Your task to perform on an android device: change notifications settings Image 0: 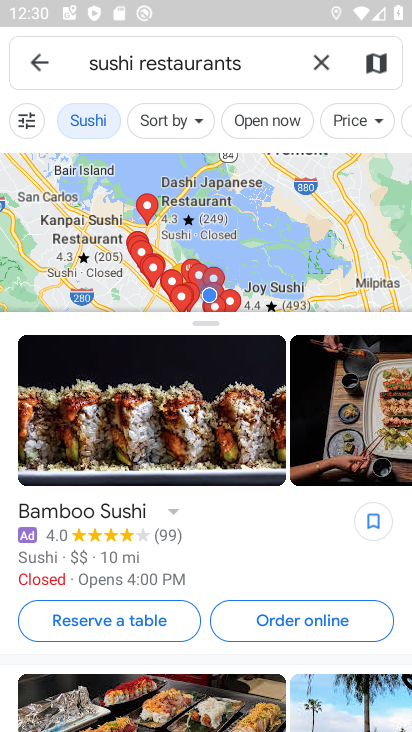
Step 0: press back button
Your task to perform on an android device: change notifications settings Image 1: 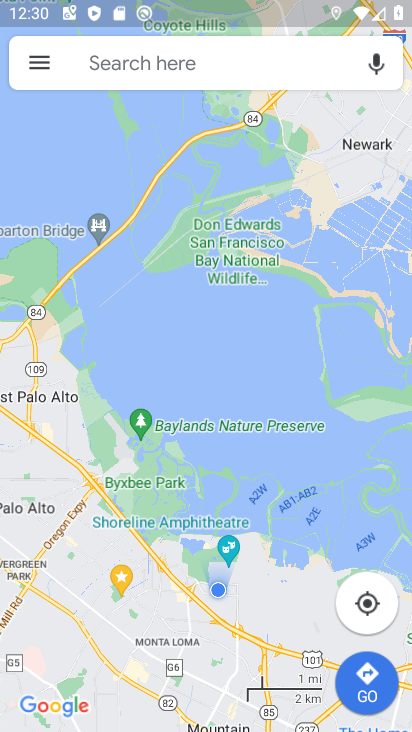
Step 1: press back button
Your task to perform on an android device: change notifications settings Image 2: 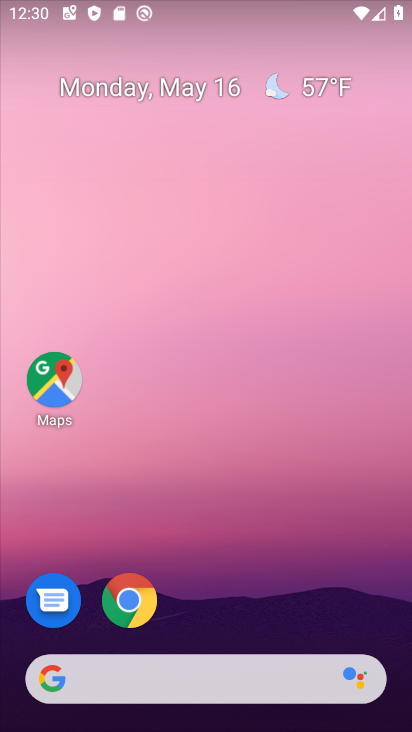
Step 2: drag from (220, 593) to (307, 51)
Your task to perform on an android device: change notifications settings Image 3: 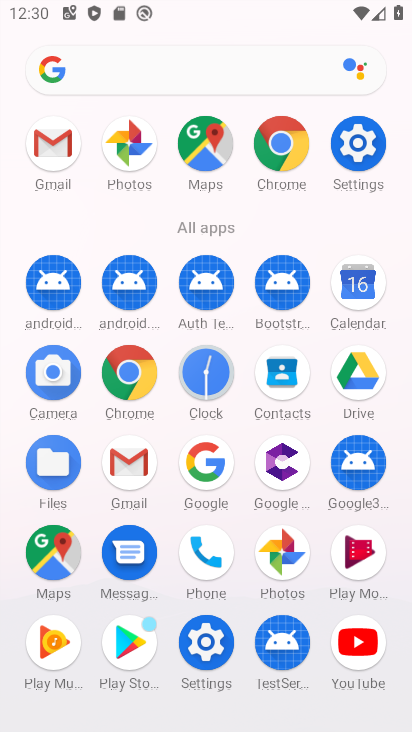
Step 3: click (368, 143)
Your task to perform on an android device: change notifications settings Image 4: 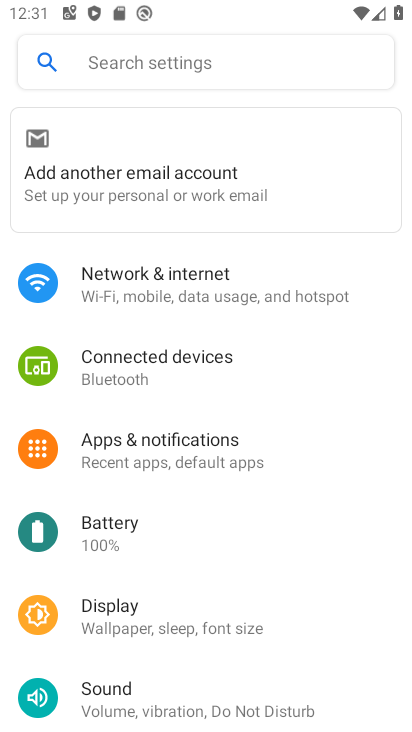
Step 4: click (146, 448)
Your task to perform on an android device: change notifications settings Image 5: 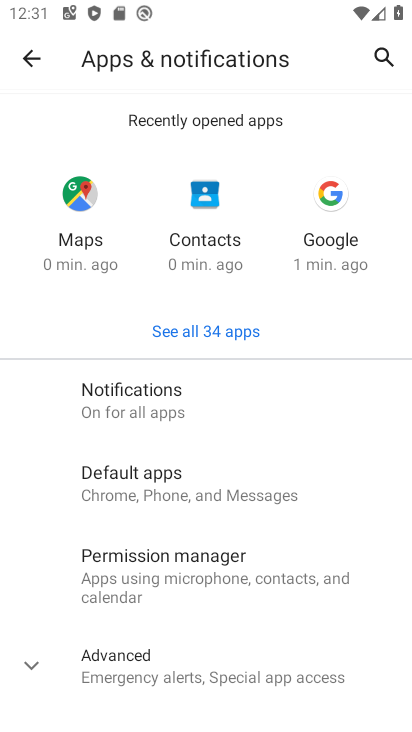
Step 5: click (162, 402)
Your task to perform on an android device: change notifications settings Image 6: 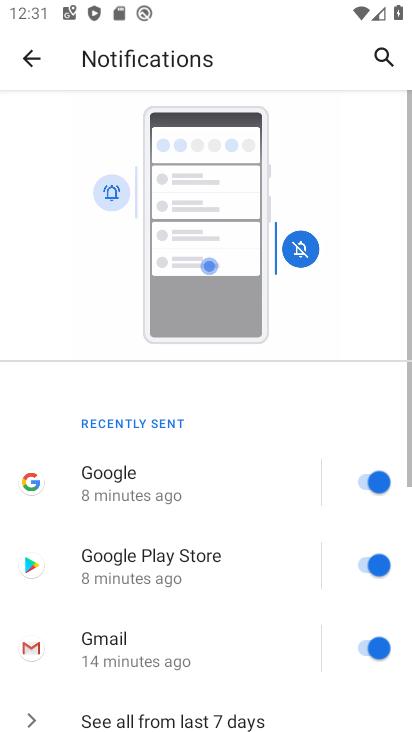
Step 6: drag from (171, 665) to (218, 192)
Your task to perform on an android device: change notifications settings Image 7: 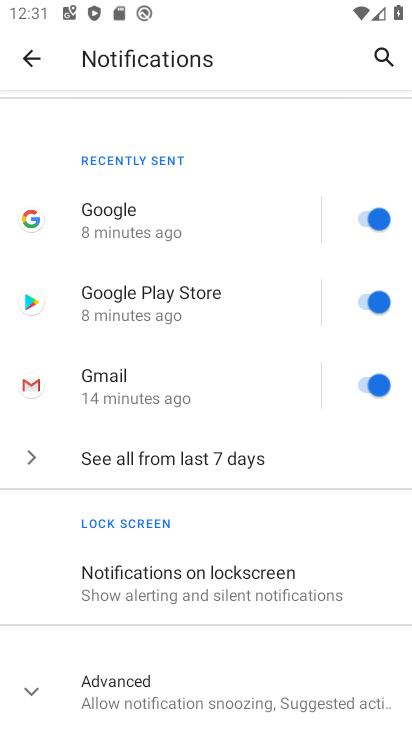
Step 7: click (179, 706)
Your task to perform on an android device: change notifications settings Image 8: 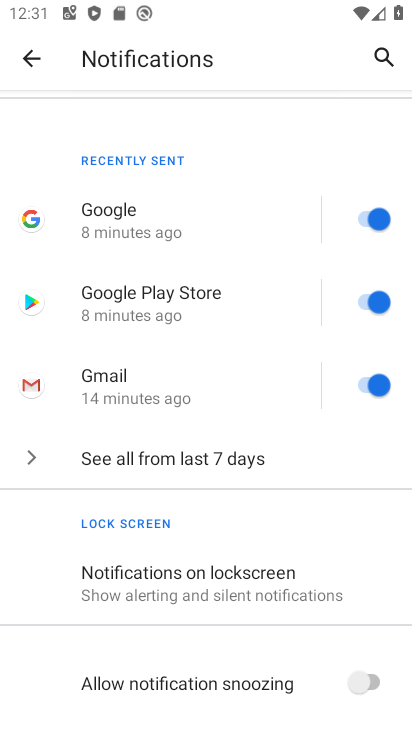
Step 8: click (356, 681)
Your task to perform on an android device: change notifications settings Image 9: 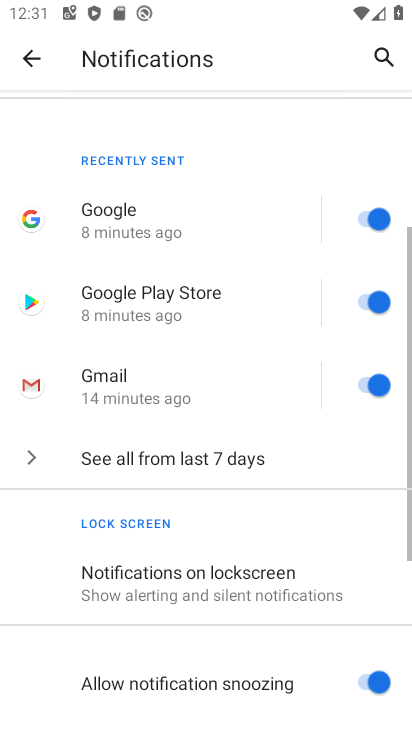
Step 9: task complete